Your task to perform on an android device: What's the weather today? Image 0: 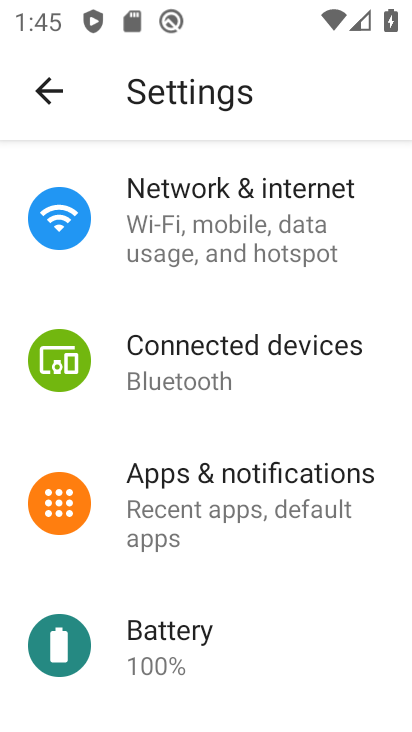
Step 0: drag from (275, 589) to (263, 355)
Your task to perform on an android device: What's the weather today? Image 1: 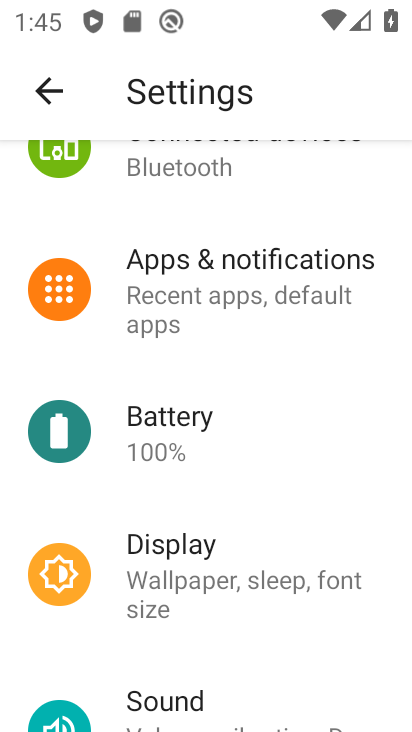
Step 1: press home button
Your task to perform on an android device: What's the weather today? Image 2: 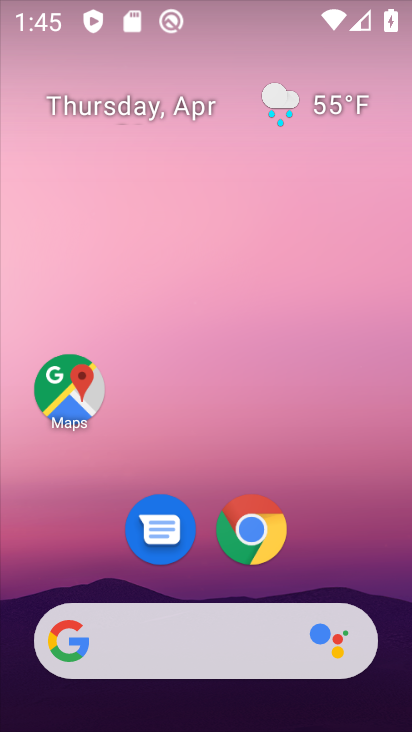
Step 2: click (287, 113)
Your task to perform on an android device: What's the weather today? Image 3: 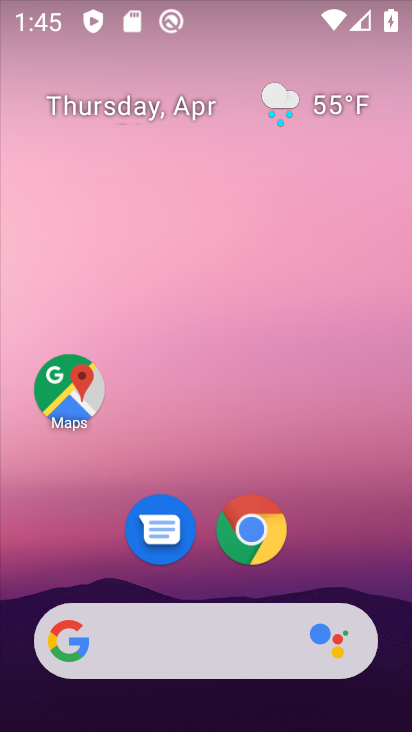
Step 3: click (301, 111)
Your task to perform on an android device: What's the weather today? Image 4: 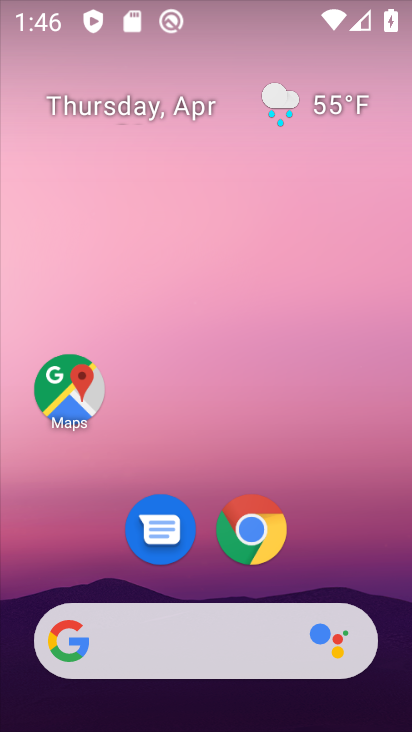
Step 4: click (293, 115)
Your task to perform on an android device: What's the weather today? Image 5: 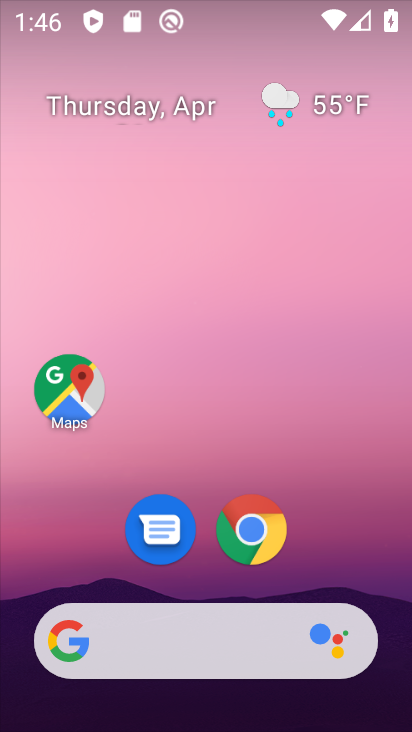
Step 5: click (323, 91)
Your task to perform on an android device: What's the weather today? Image 6: 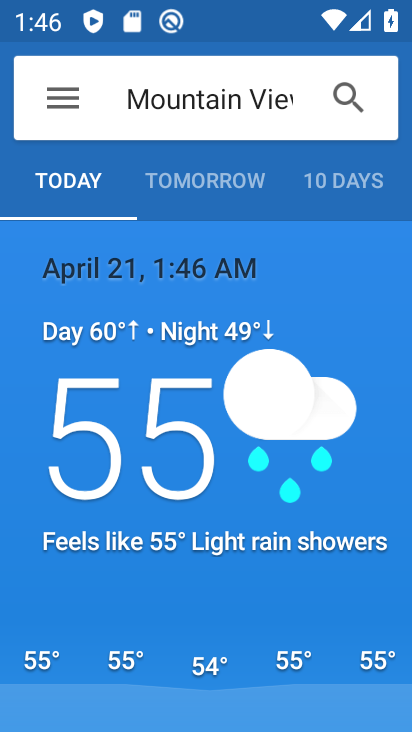
Step 6: task complete